Your task to perform on an android device: Go to network settings Image 0: 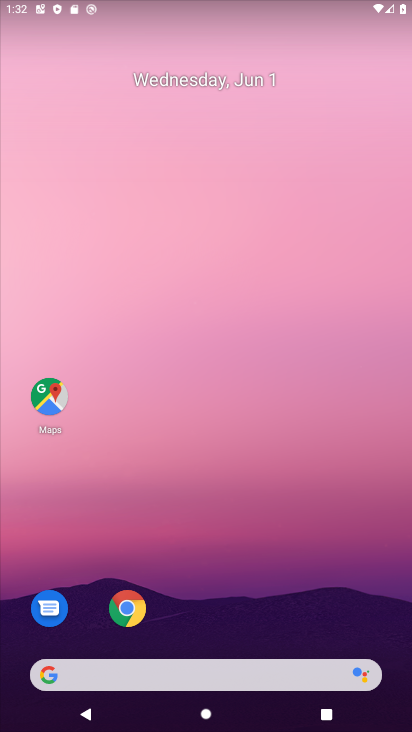
Step 0: drag from (198, 639) to (210, 246)
Your task to perform on an android device: Go to network settings Image 1: 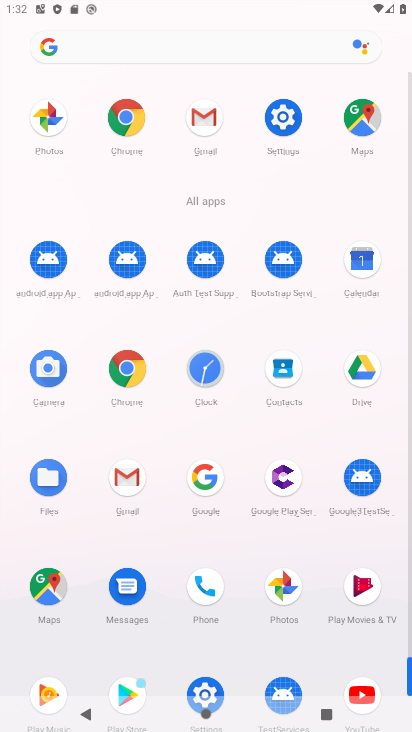
Step 1: click (276, 114)
Your task to perform on an android device: Go to network settings Image 2: 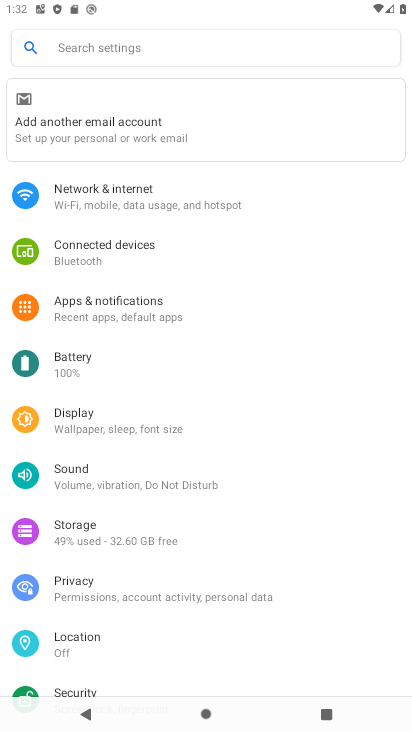
Step 2: task complete